Your task to perform on an android device: Open battery settings Image 0: 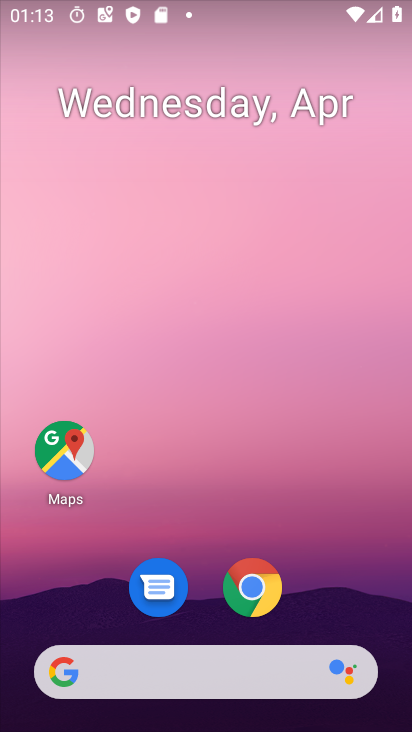
Step 0: drag from (375, 626) to (332, 19)
Your task to perform on an android device: Open battery settings Image 1: 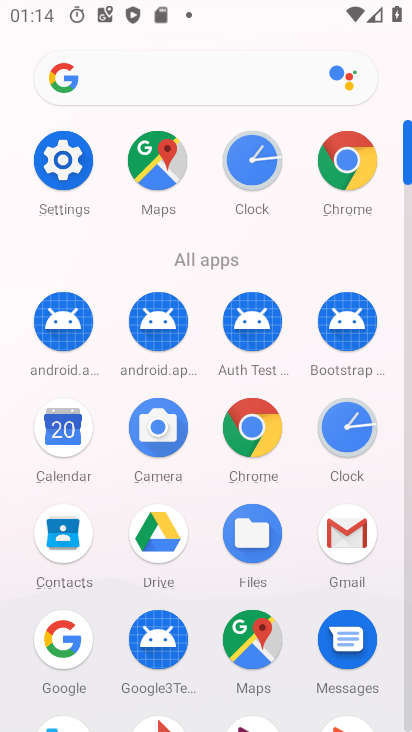
Step 1: click (68, 168)
Your task to perform on an android device: Open battery settings Image 2: 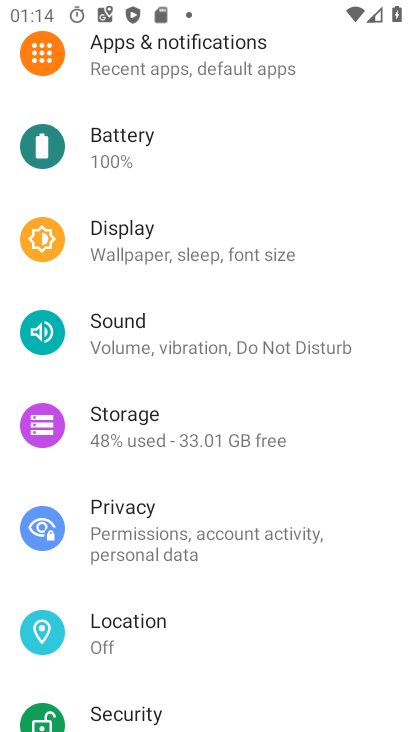
Step 2: click (110, 147)
Your task to perform on an android device: Open battery settings Image 3: 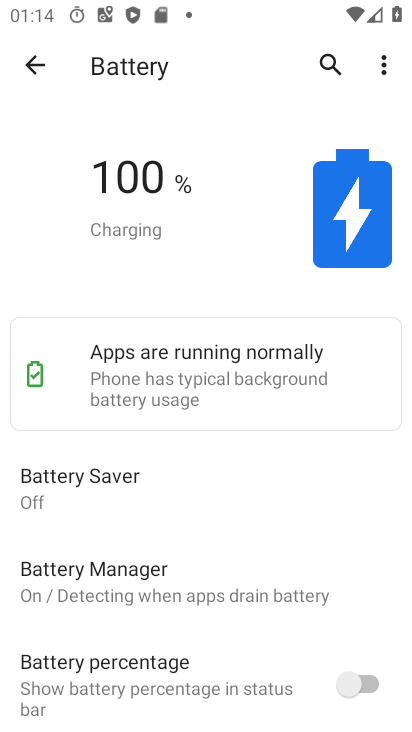
Step 3: task complete